Your task to perform on an android device: set the timer Image 0: 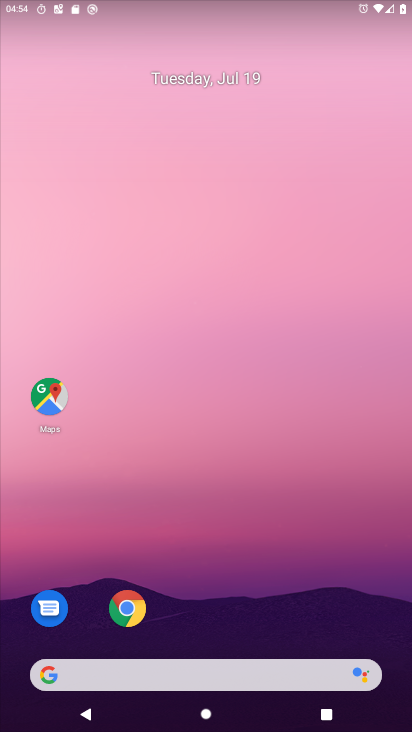
Step 0: drag from (212, 679) to (241, 24)
Your task to perform on an android device: set the timer Image 1: 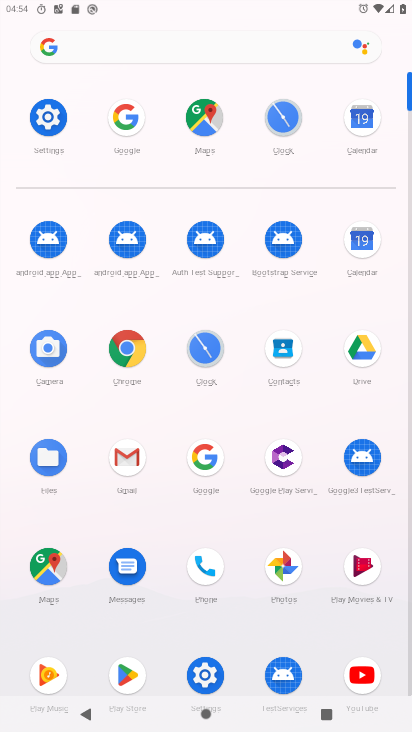
Step 1: click (282, 118)
Your task to perform on an android device: set the timer Image 2: 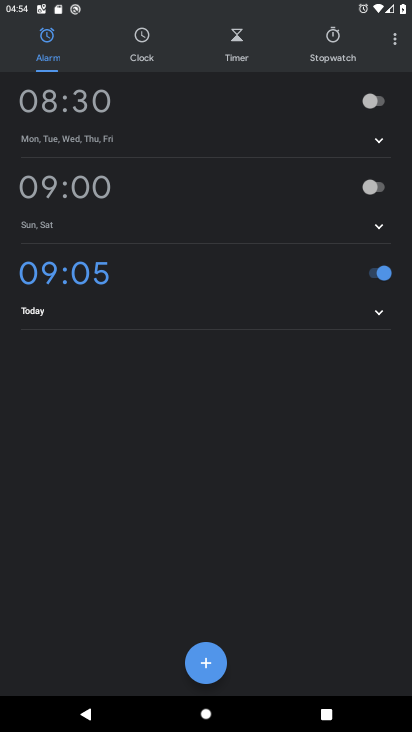
Step 2: click (238, 38)
Your task to perform on an android device: set the timer Image 3: 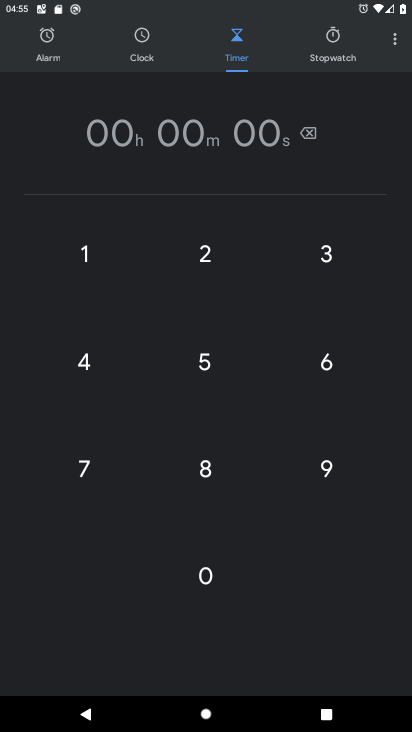
Step 3: type "1357"
Your task to perform on an android device: set the timer Image 4: 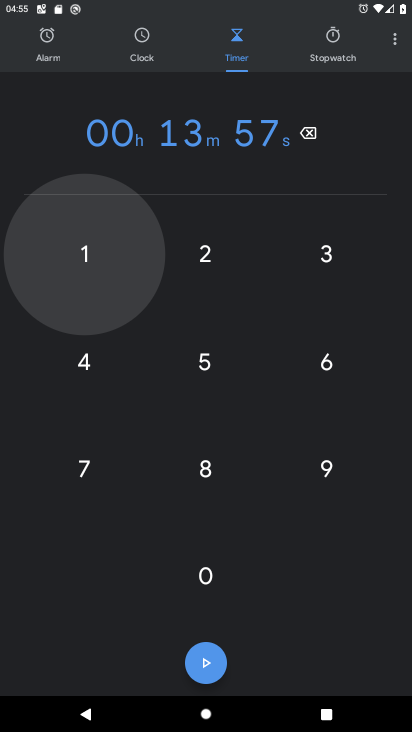
Step 4: click (207, 665)
Your task to perform on an android device: set the timer Image 5: 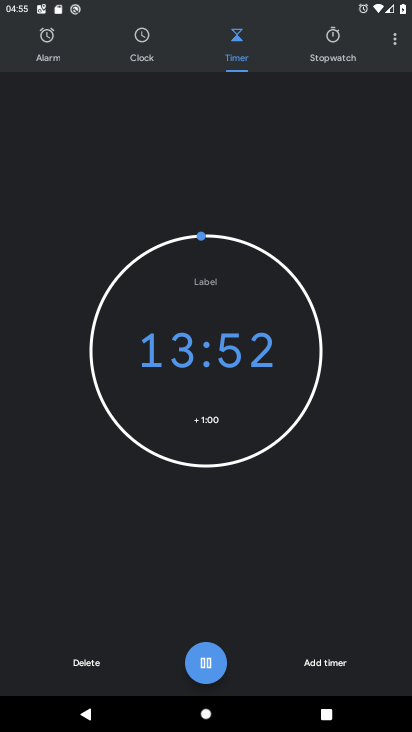
Step 5: click (204, 669)
Your task to perform on an android device: set the timer Image 6: 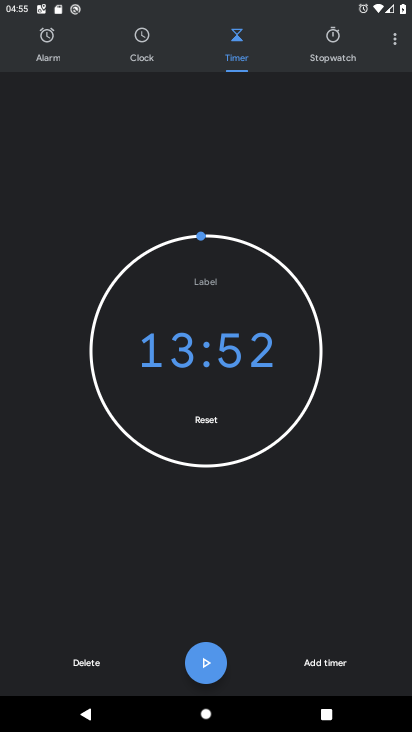
Step 6: task complete